Your task to perform on an android device: turn off location history Image 0: 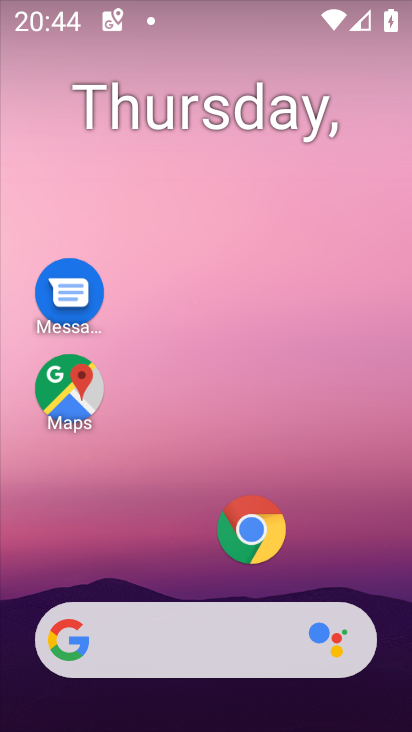
Step 0: drag from (183, 567) to (292, 13)
Your task to perform on an android device: turn off location history Image 1: 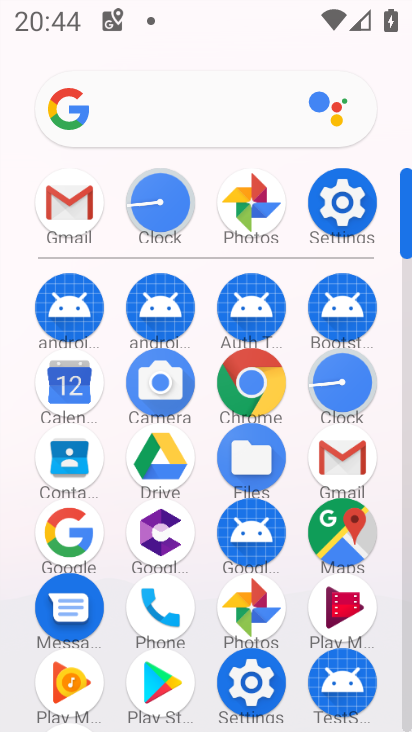
Step 1: click (329, 185)
Your task to perform on an android device: turn off location history Image 2: 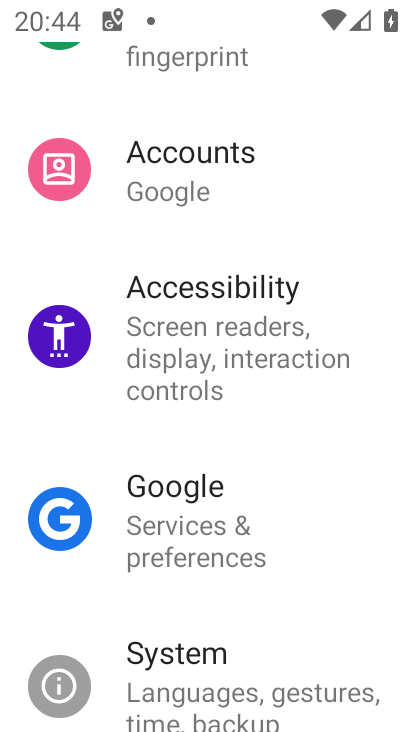
Step 2: drag from (275, 186) to (324, 624)
Your task to perform on an android device: turn off location history Image 3: 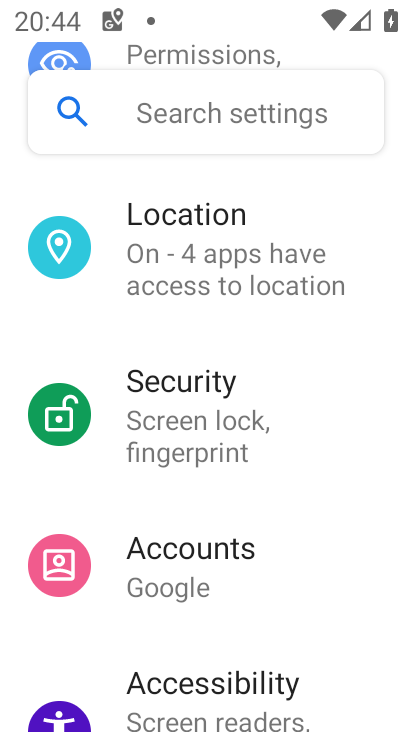
Step 3: click (233, 301)
Your task to perform on an android device: turn off location history Image 4: 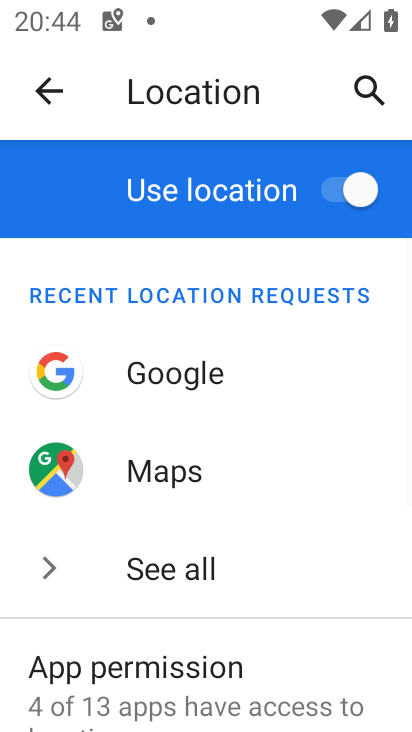
Step 4: drag from (165, 629) to (238, 195)
Your task to perform on an android device: turn off location history Image 5: 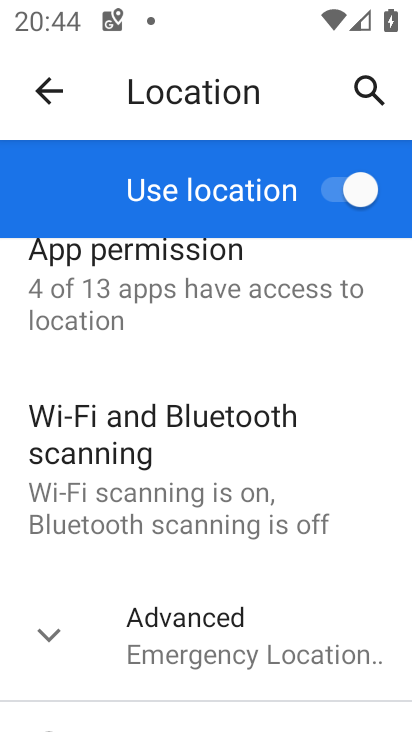
Step 5: click (205, 632)
Your task to perform on an android device: turn off location history Image 6: 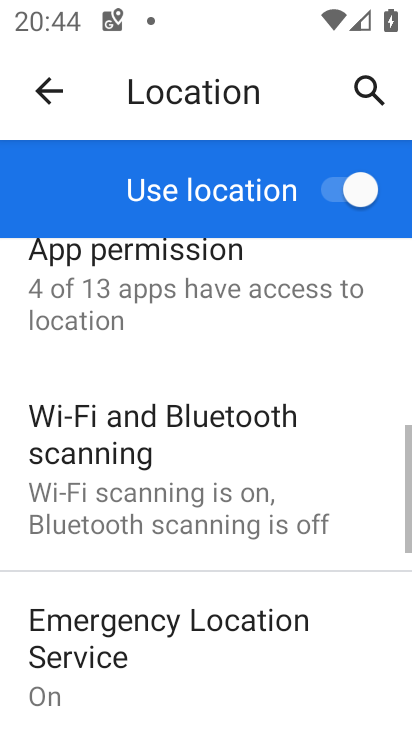
Step 6: task complete